Your task to perform on an android device: open a bookmark in the chrome app Image 0: 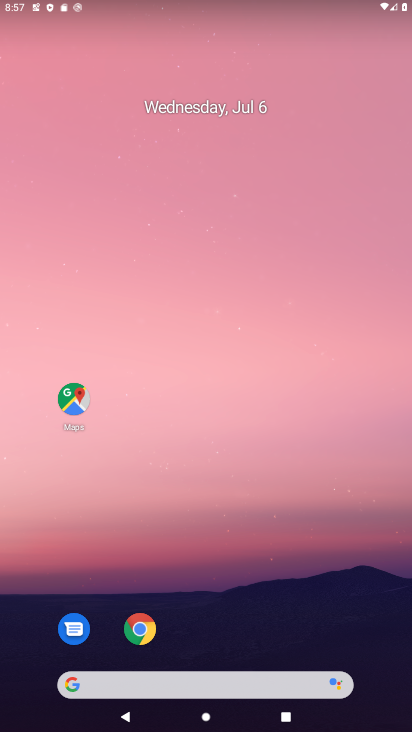
Step 0: drag from (199, 636) to (207, 213)
Your task to perform on an android device: open a bookmark in the chrome app Image 1: 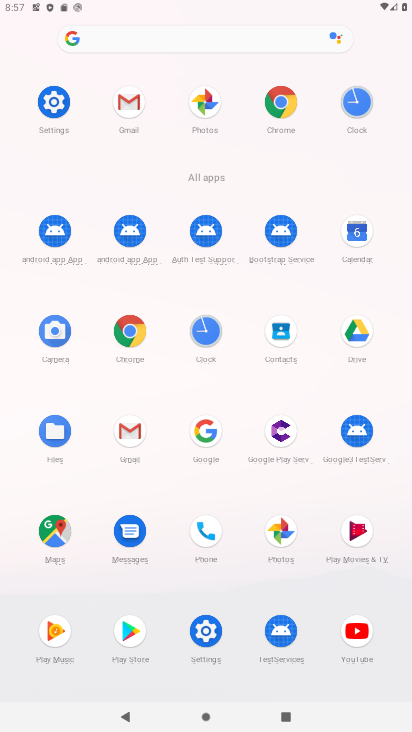
Step 1: click (278, 105)
Your task to perform on an android device: open a bookmark in the chrome app Image 2: 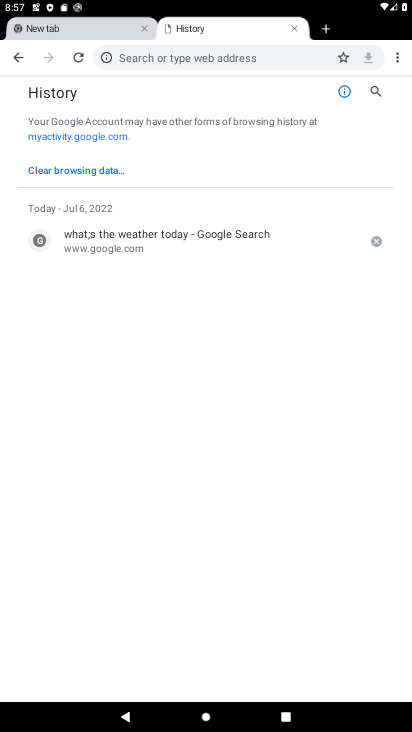
Step 2: click (393, 56)
Your task to perform on an android device: open a bookmark in the chrome app Image 3: 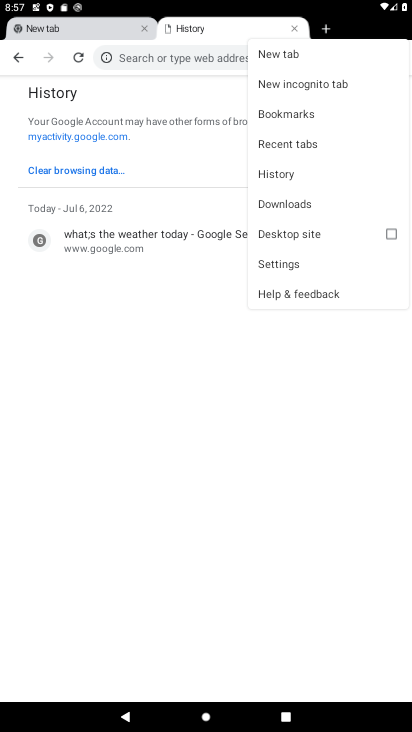
Step 3: click (298, 115)
Your task to perform on an android device: open a bookmark in the chrome app Image 4: 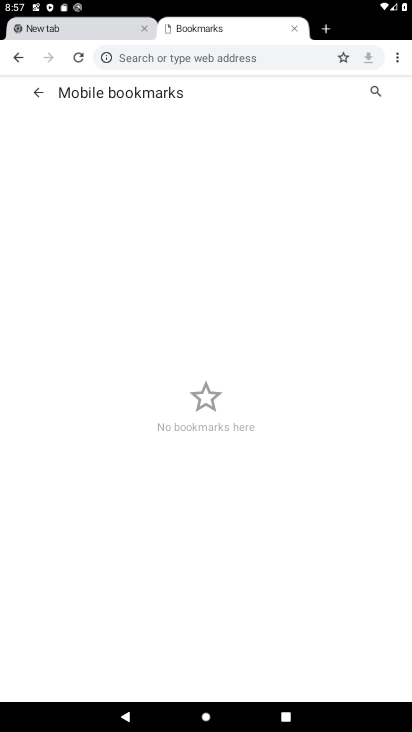
Step 4: task complete